Your task to perform on an android device: turn off sleep mode Image 0: 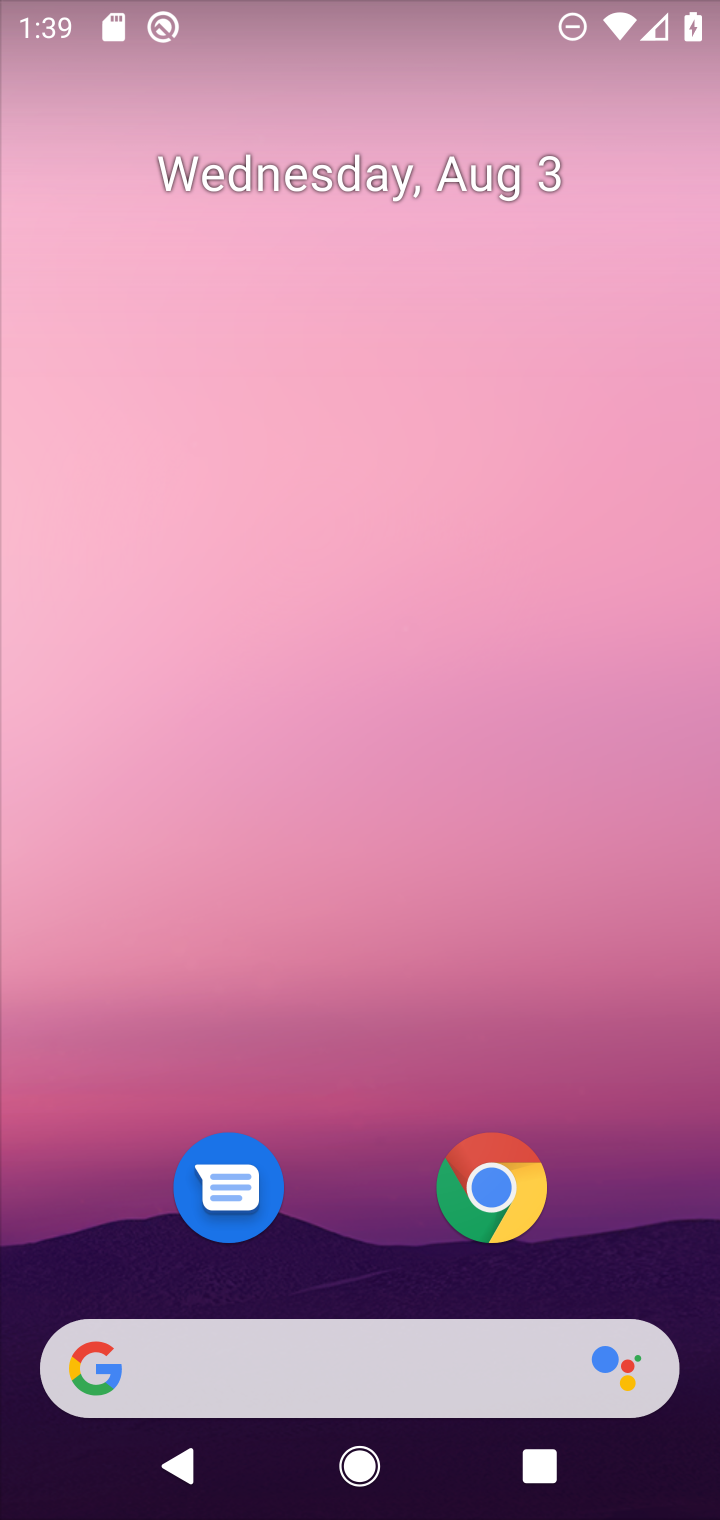
Step 0: drag from (354, 1095) to (403, 0)
Your task to perform on an android device: turn off sleep mode Image 1: 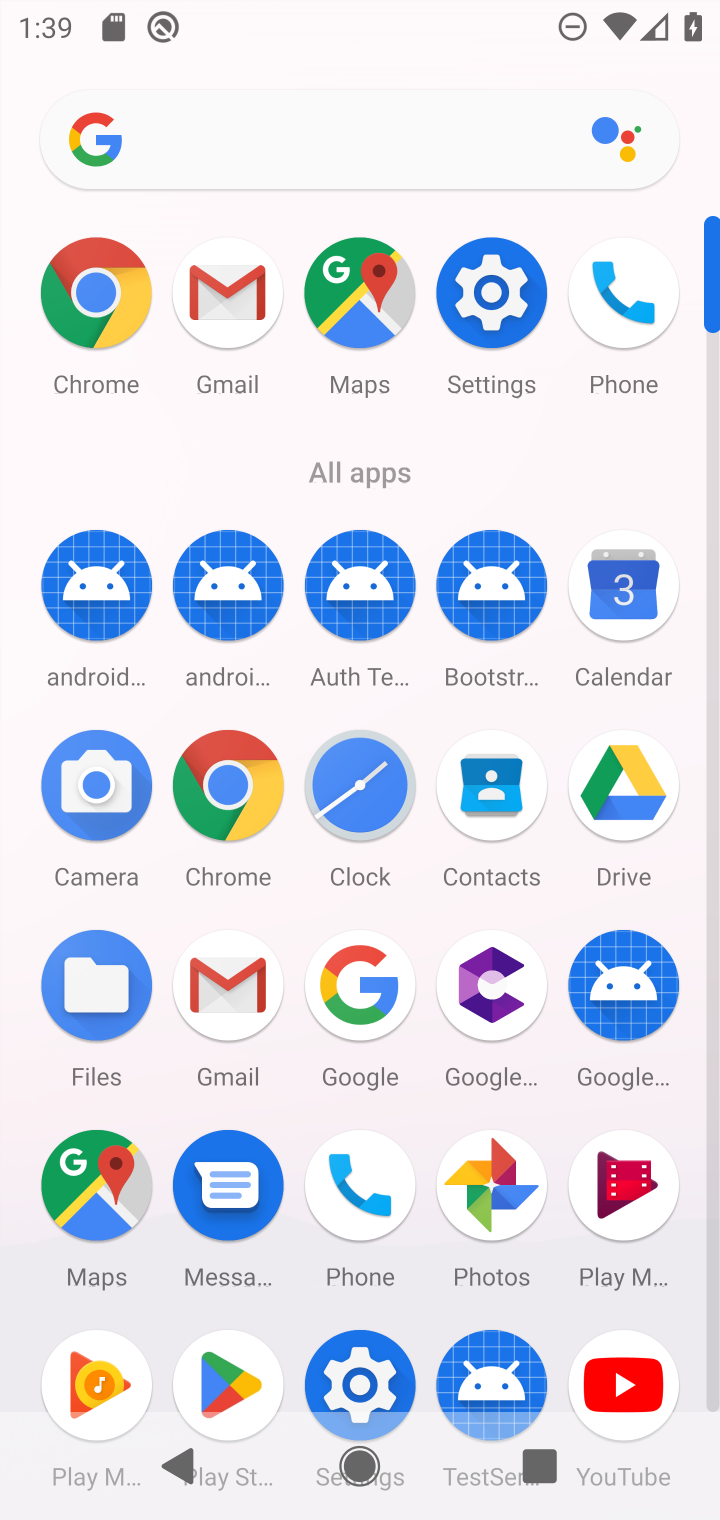
Step 1: click (497, 298)
Your task to perform on an android device: turn off sleep mode Image 2: 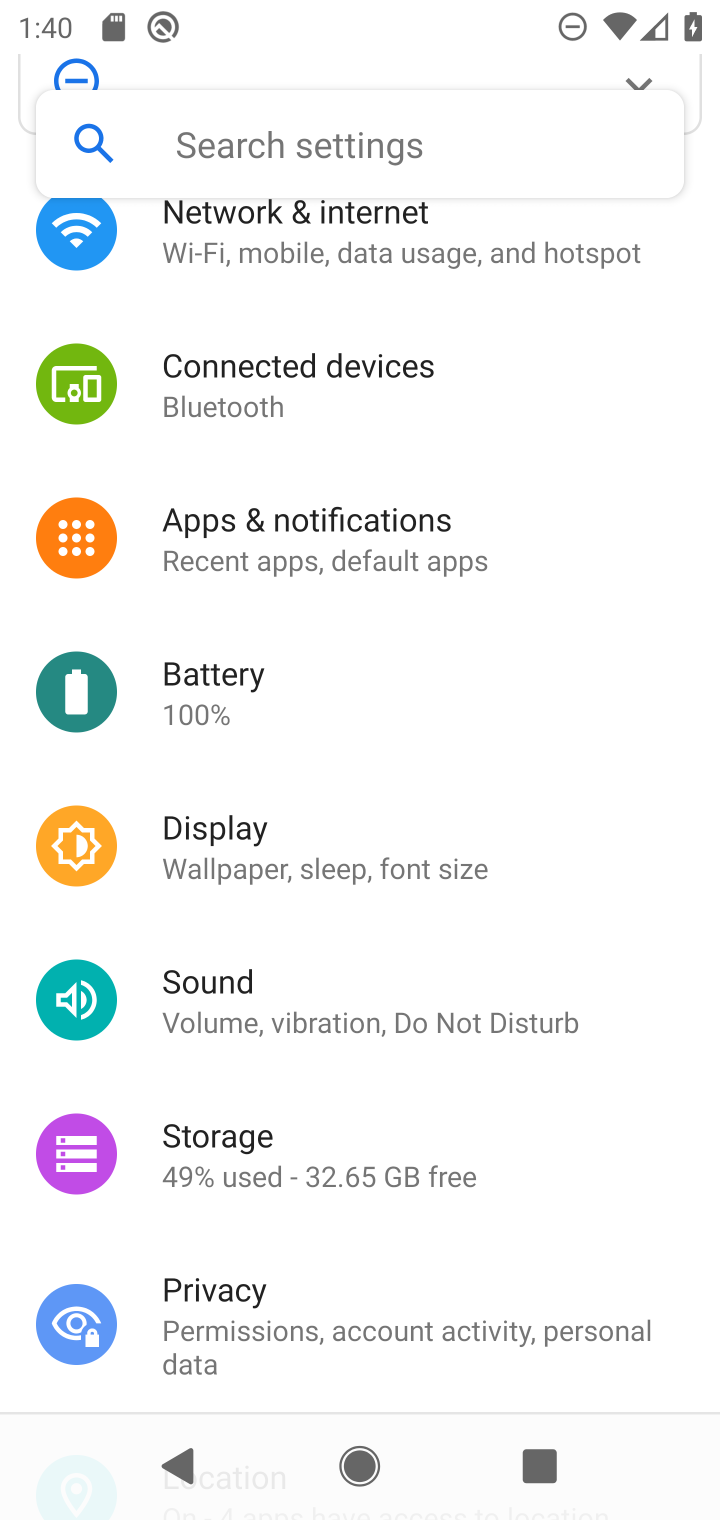
Step 2: click (310, 843)
Your task to perform on an android device: turn off sleep mode Image 3: 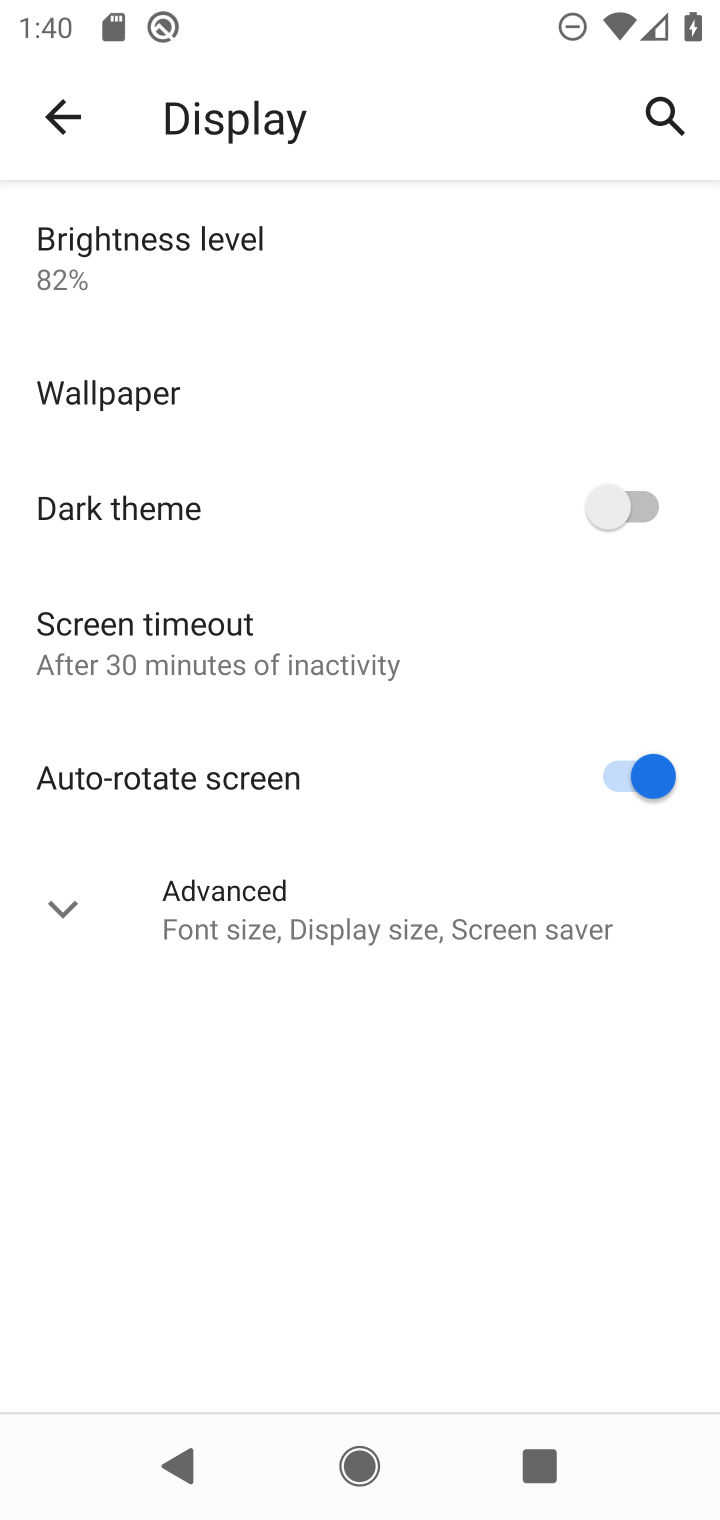
Step 3: click (59, 903)
Your task to perform on an android device: turn off sleep mode Image 4: 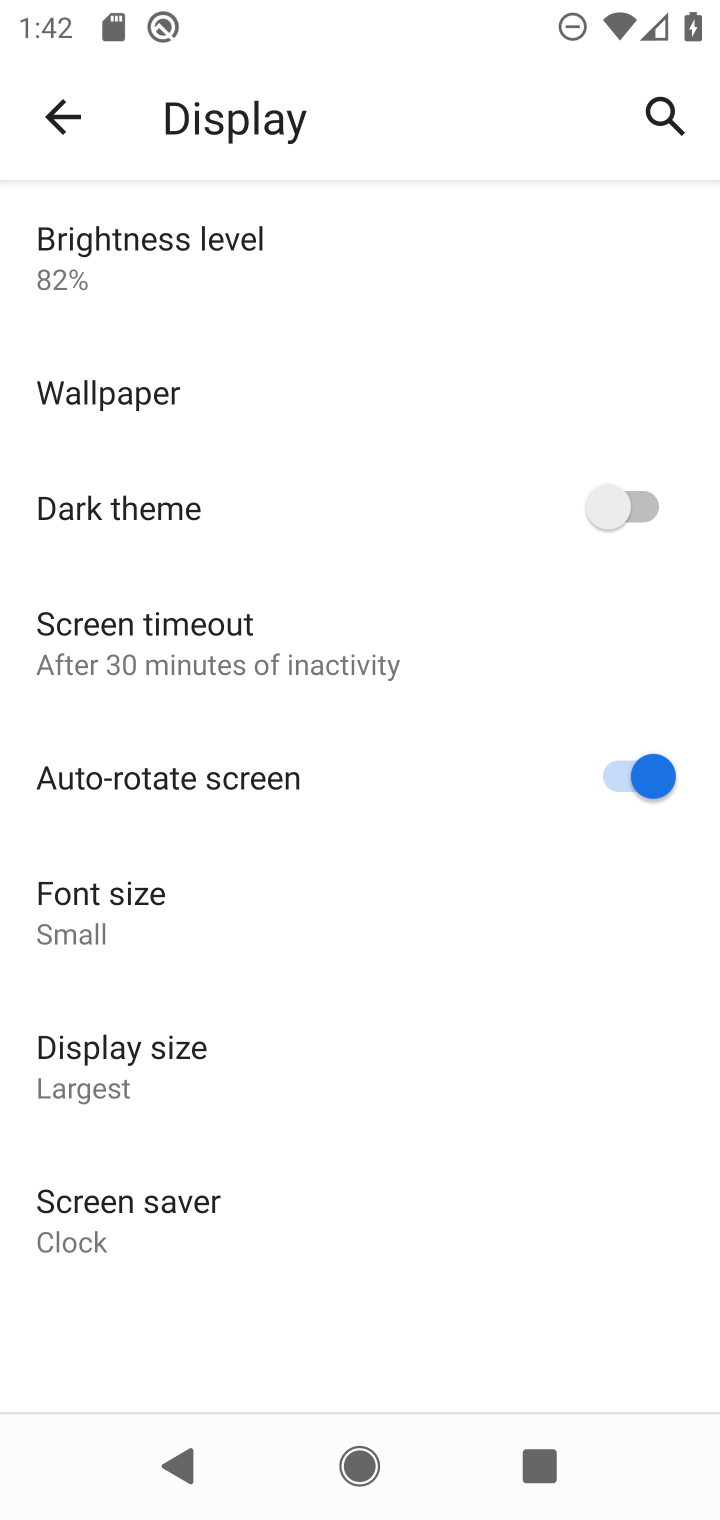
Step 4: task complete